Your task to perform on an android device: Empty the shopping cart on newegg.com. Image 0: 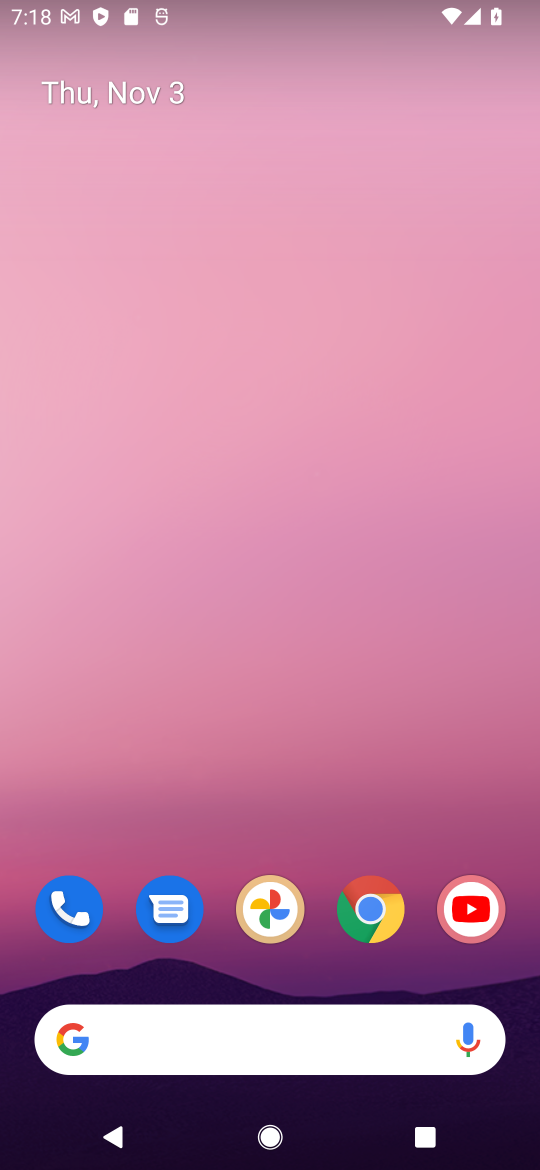
Step 0: drag from (154, 981) to (247, 165)
Your task to perform on an android device: Empty the shopping cart on newegg.com. Image 1: 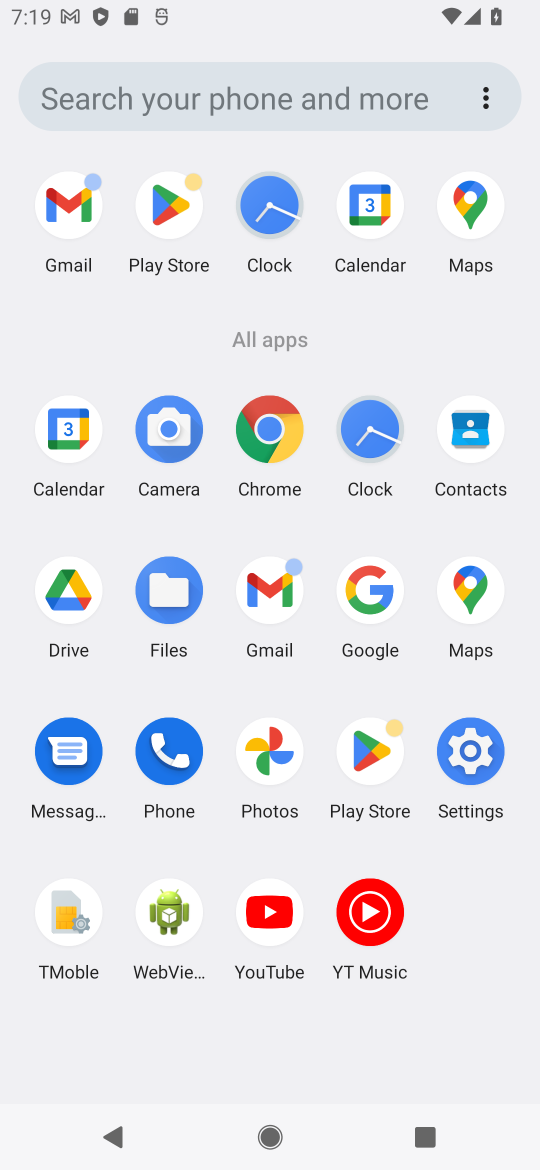
Step 1: click (372, 583)
Your task to perform on an android device: Empty the shopping cart on newegg.com. Image 2: 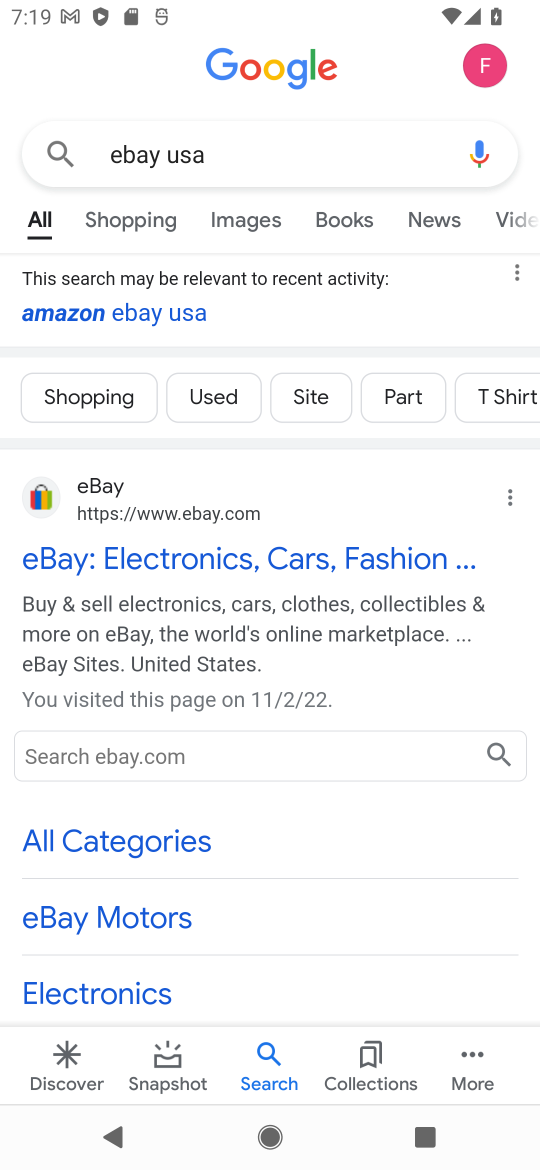
Step 2: click (298, 122)
Your task to perform on an android device: Empty the shopping cart on newegg.com. Image 3: 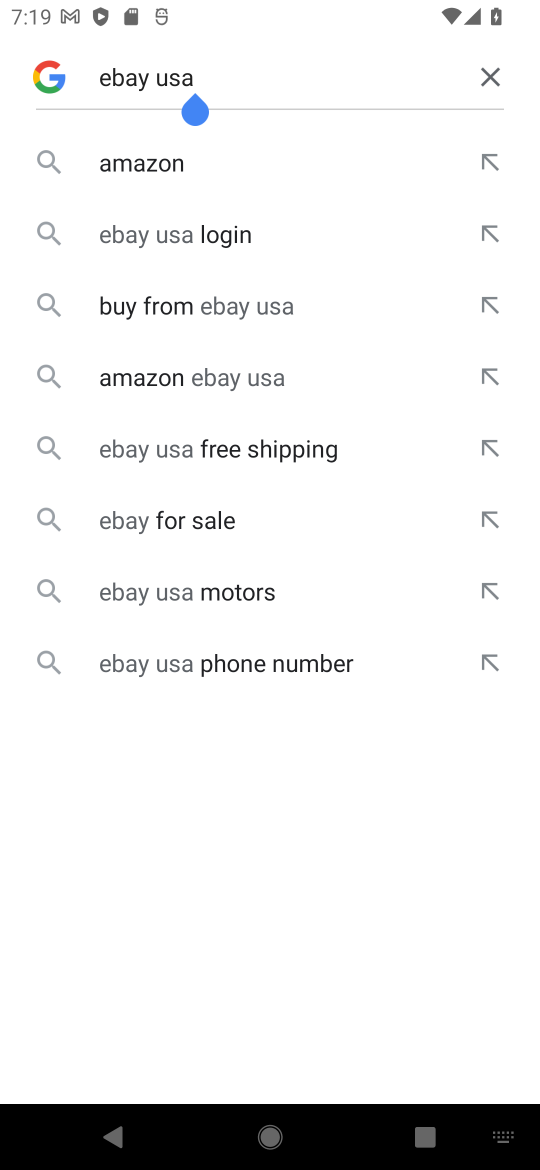
Step 3: click (489, 75)
Your task to perform on an android device: Empty the shopping cart on newegg.com. Image 4: 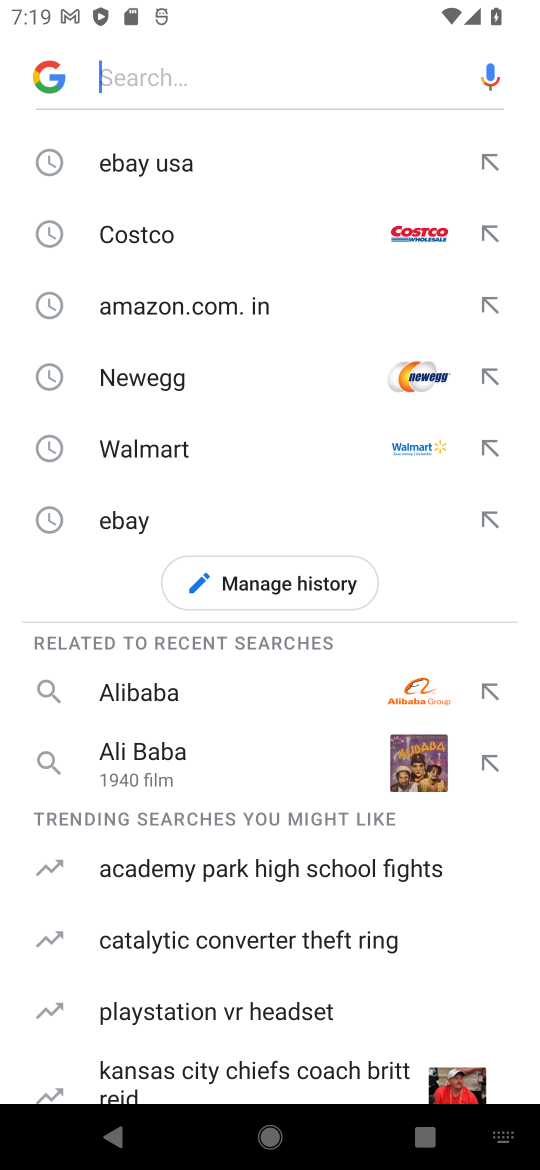
Step 4: click (196, 69)
Your task to perform on an android device: Empty the shopping cart on newegg.com. Image 5: 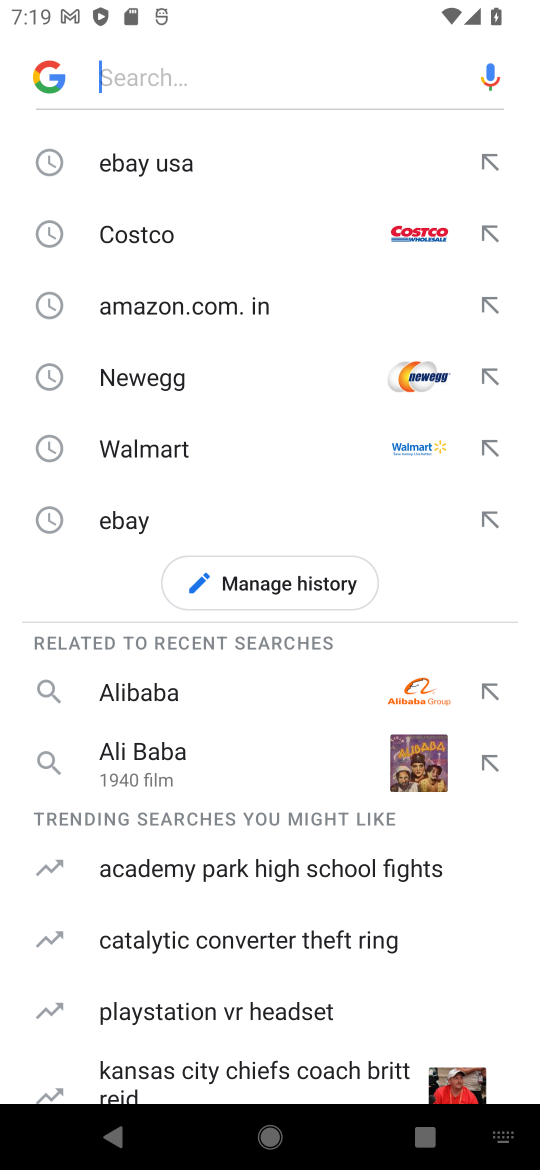
Step 5: type "newegg.com. "
Your task to perform on an android device: Empty the shopping cart on newegg.com. Image 6: 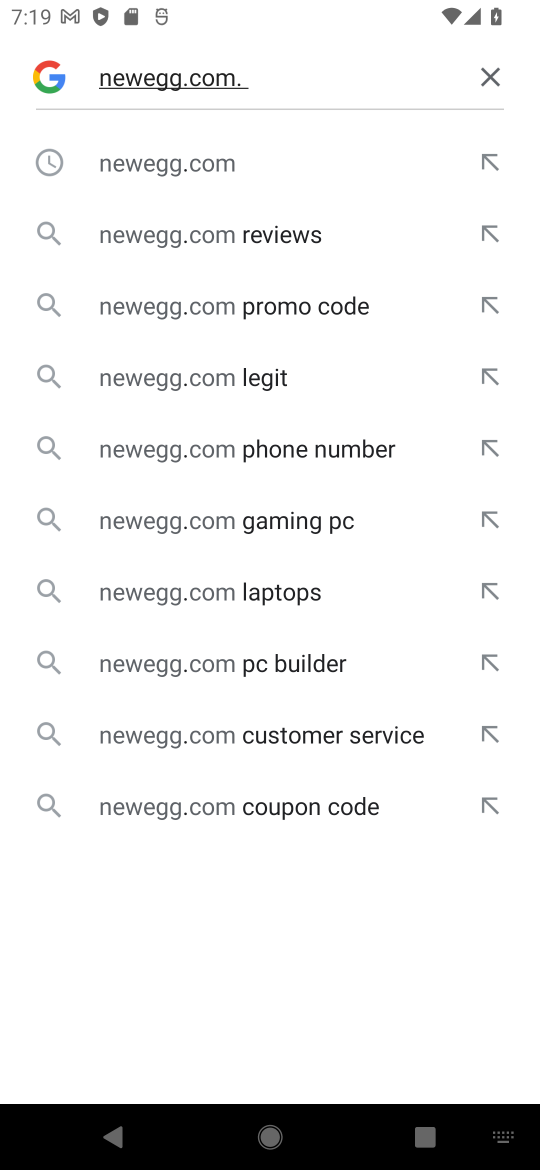
Step 6: click (139, 159)
Your task to perform on an android device: Empty the shopping cart on newegg.com. Image 7: 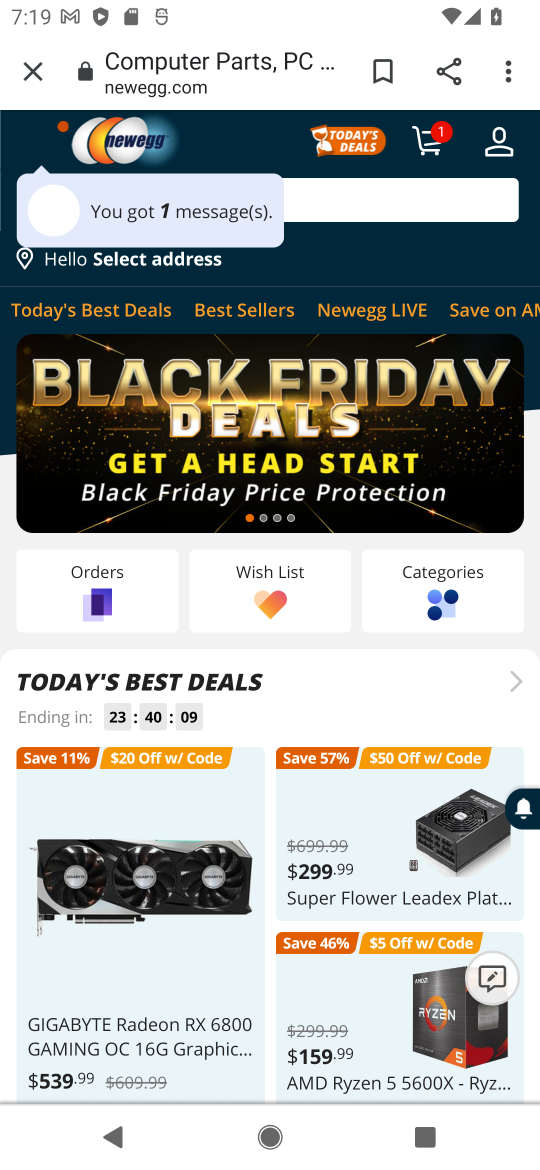
Step 7: click (433, 136)
Your task to perform on an android device: Empty the shopping cart on newegg.com. Image 8: 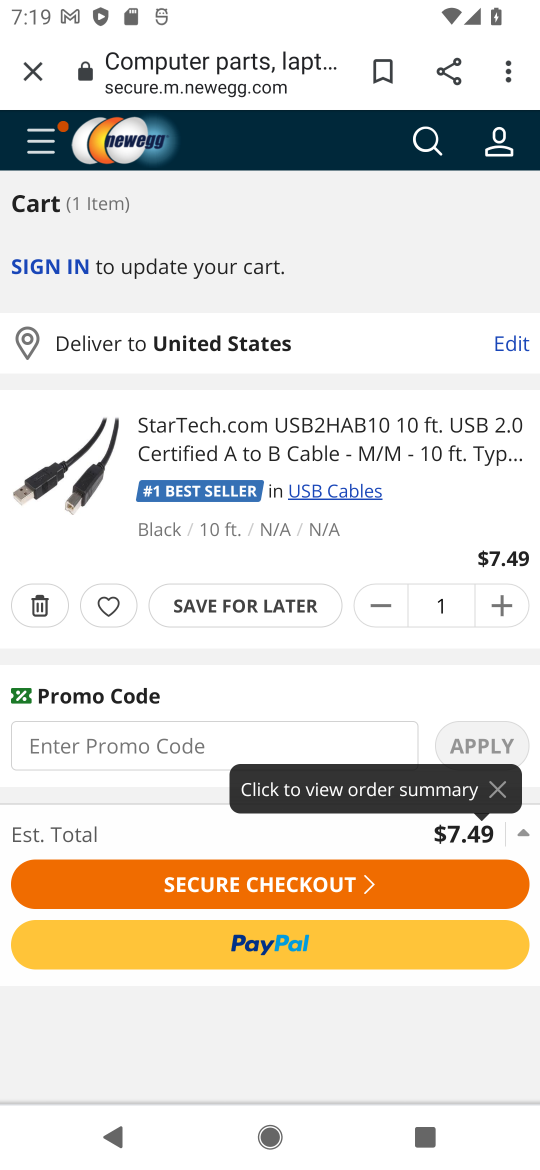
Step 8: click (42, 607)
Your task to perform on an android device: Empty the shopping cart on newegg.com. Image 9: 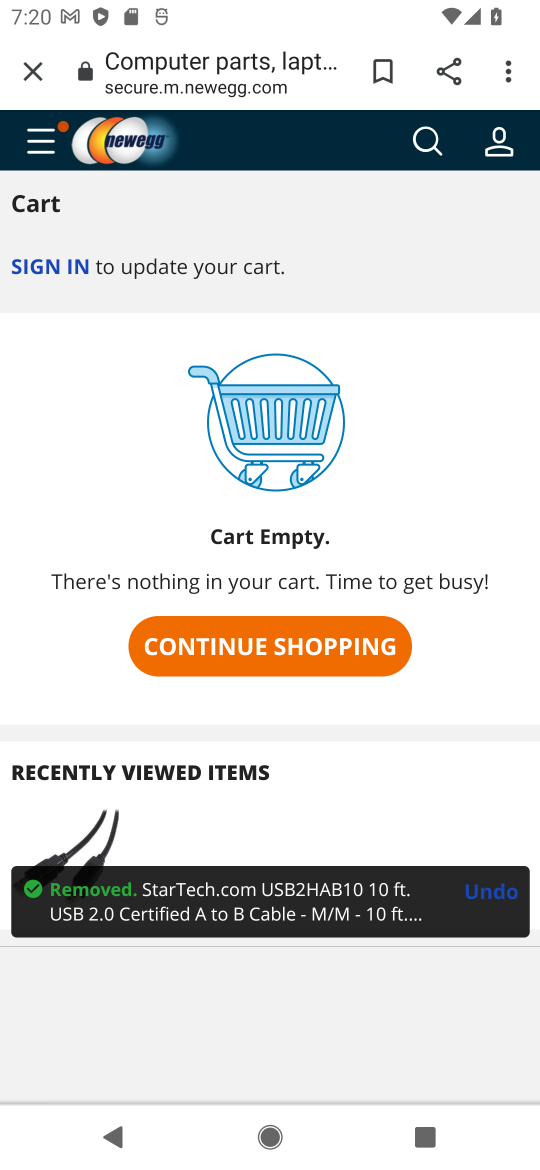
Step 9: task complete